Your task to perform on an android device: check storage Image 0: 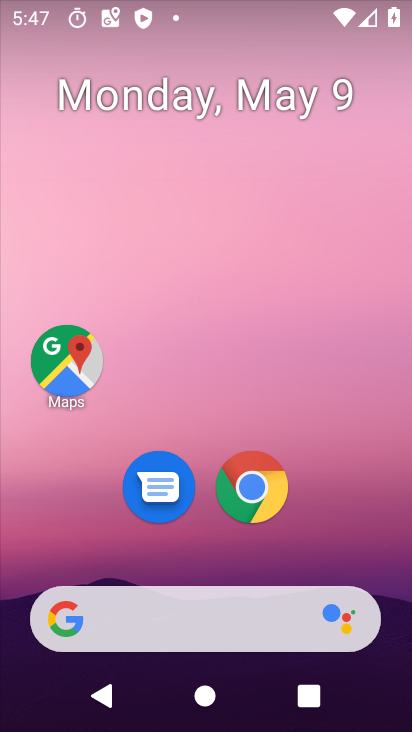
Step 0: drag from (316, 567) to (325, 9)
Your task to perform on an android device: check storage Image 1: 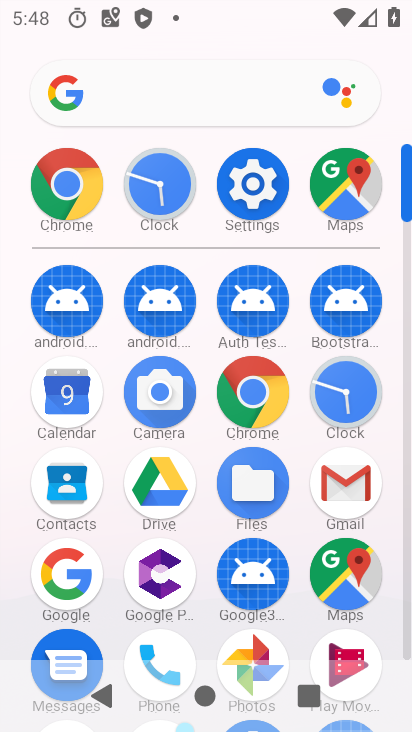
Step 1: click (251, 214)
Your task to perform on an android device: check storage Image 2: 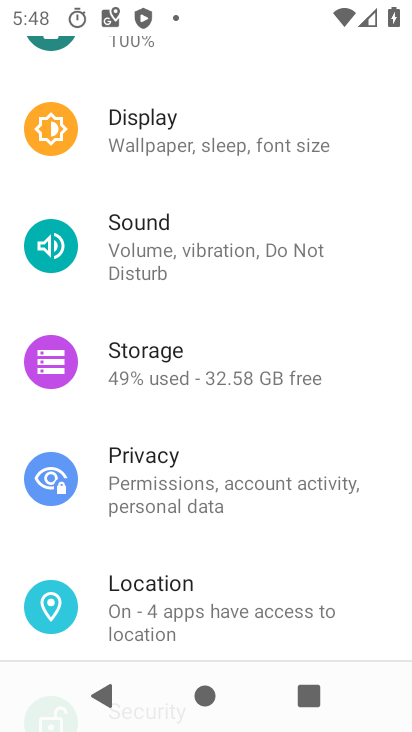
Step 2: click (160, 408)
Your task to perform on an android device: check storage Image 3: 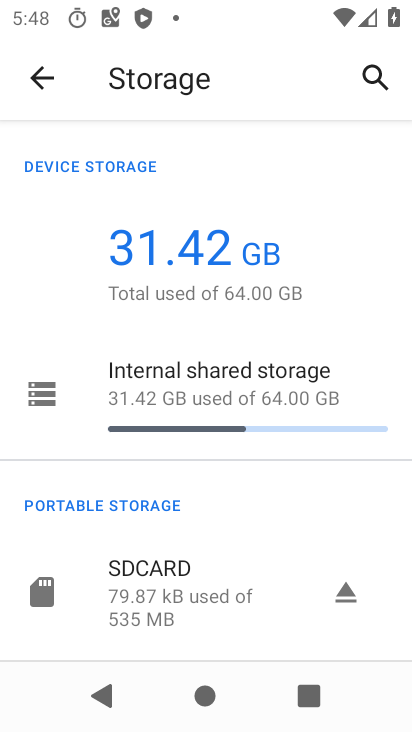
Step 3: task complete